Your task to perform on an android device: turn off location Image 0: 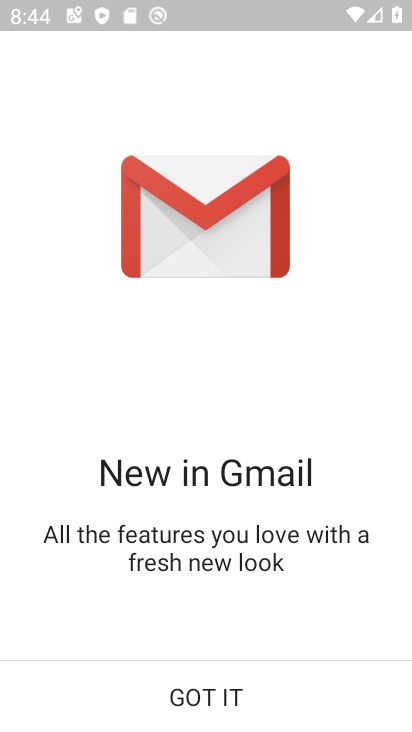
Step 0: press home button
Your task to perform on an android device: turn off location Image 1: 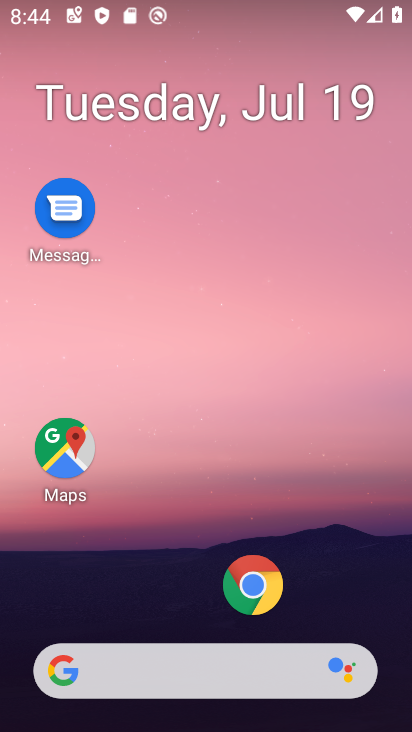
Step 1: drag from (206, 611) to (176, 48)
Your task to perform on an android device: turn off location Image 2: 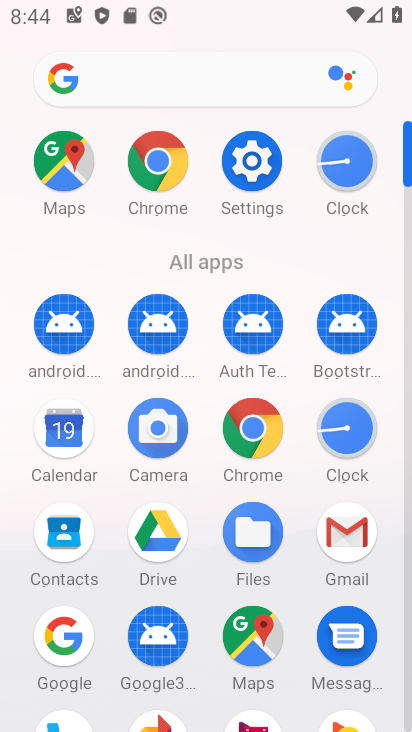
Step 2: click (253, 134)
Your task to perform on an android device: turn off location Image 3: 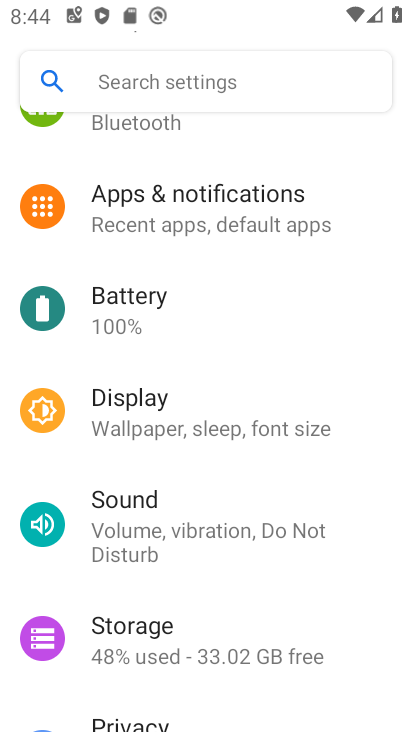
Step 3: drag from (242, 486) to (195, 131)
Your task to perform on an android device: turn off location Image 4: 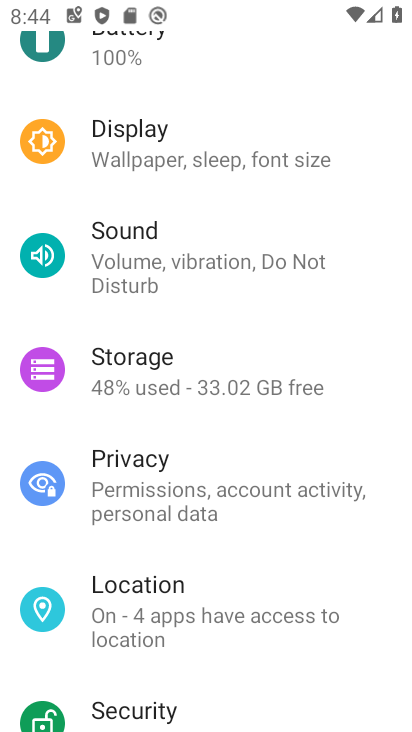
Step 4: click (180, 599)
Your task to perform on an android device: turn off location Image 5: 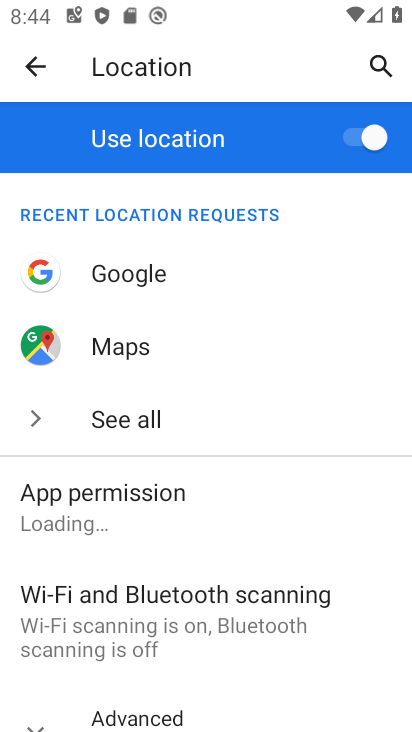
Step 5: click (348, 142)
Your task to perform on an android device: turn off location Image 6: 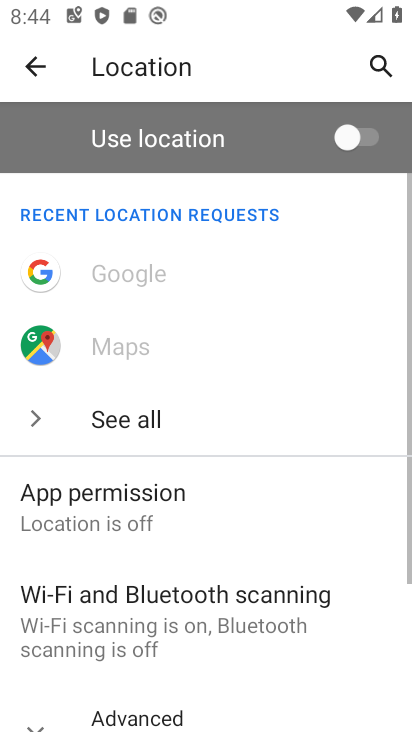
Step 6: task complete